Your task to perform on an android device: Show me recent news Image 0: 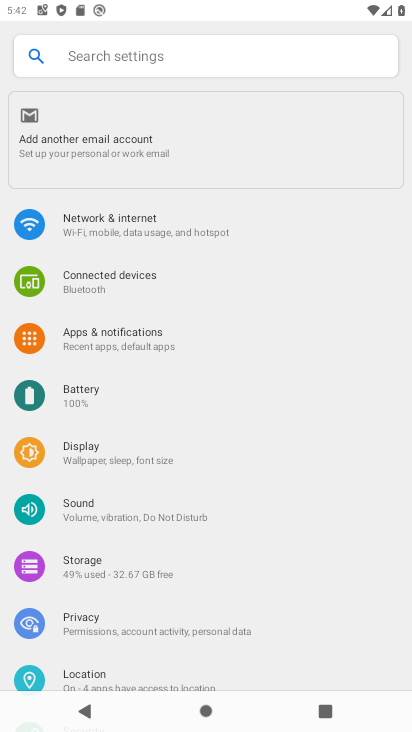
Step 0: press back button
Your task to perform on an android device: Show me recent news Image 1: 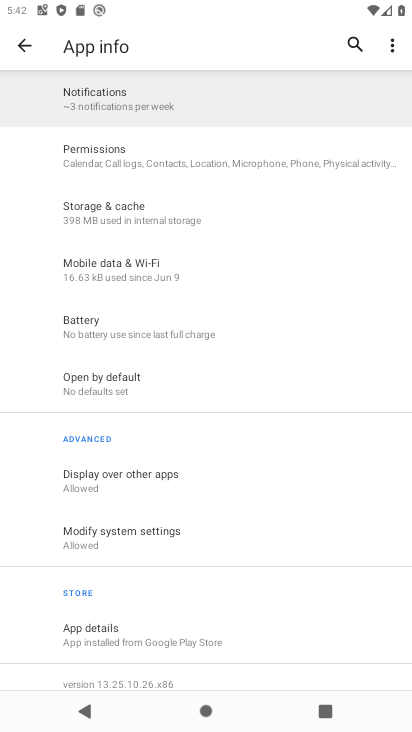
Step 1: press back button
Your task to perform on an android device: Show me recent news Image 2: 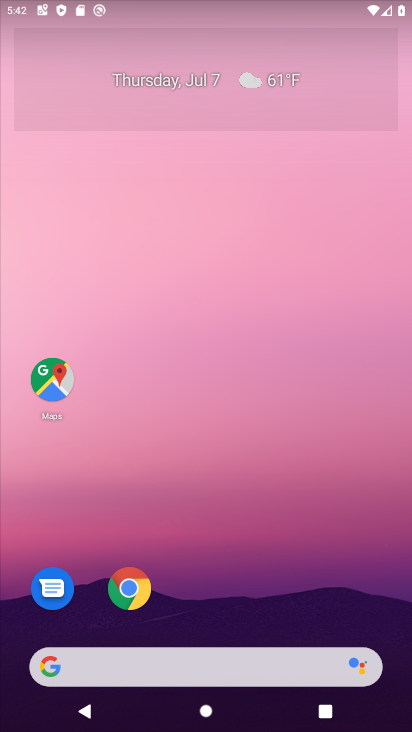
Step 2: drag from (250, 601) to (313, 101)
Your task to perform on an android device: Show me recent news Image 3: 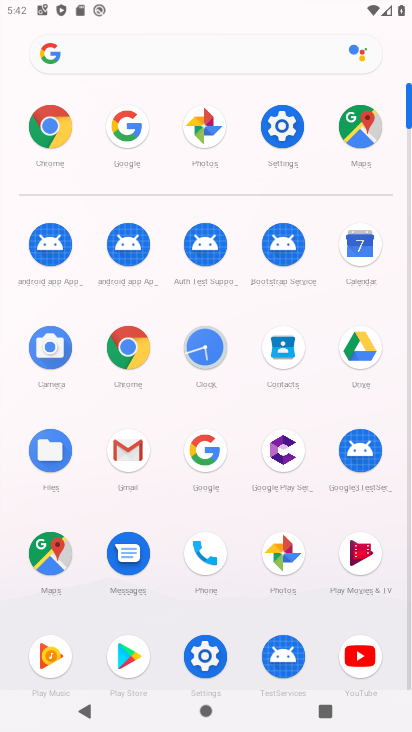
Step 3: click (95, 51)
Your task to perform on an android device: Show me recent news Image 4: 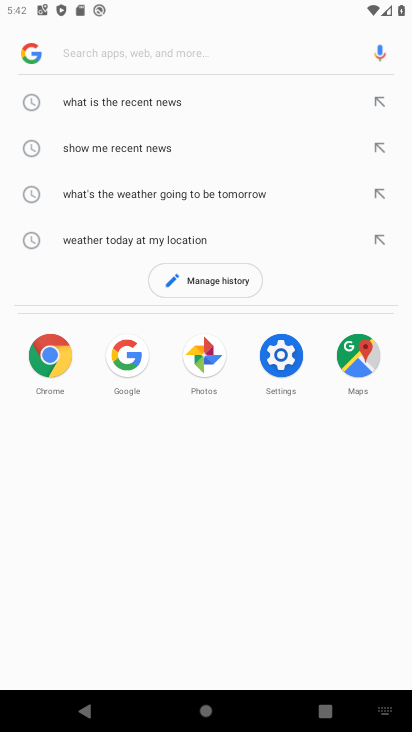
Step 4: click (192, 145)
Your task to perform on an android device: Show me recent news Image 5: 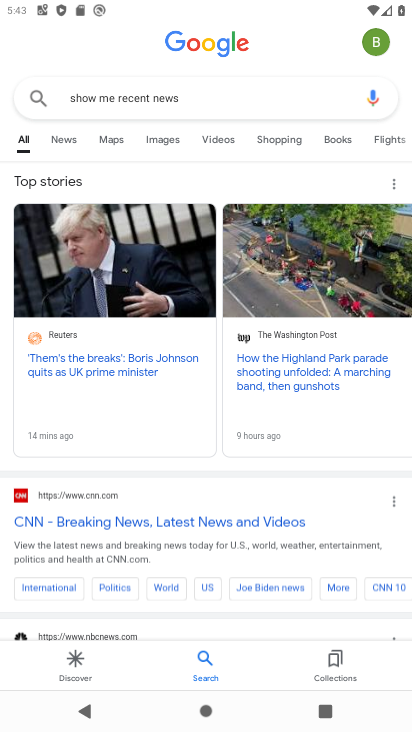
Step 5: task complete